Your task to perform on an android device: change the upload size in google photos Image 0: 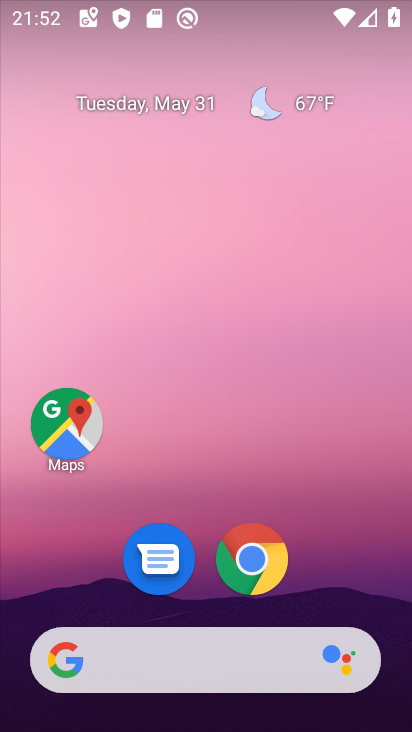
Step 0: drag from (336, 517) to (347, 35)
Your task to perform on an android device: change the upload size in google photos Image 1: 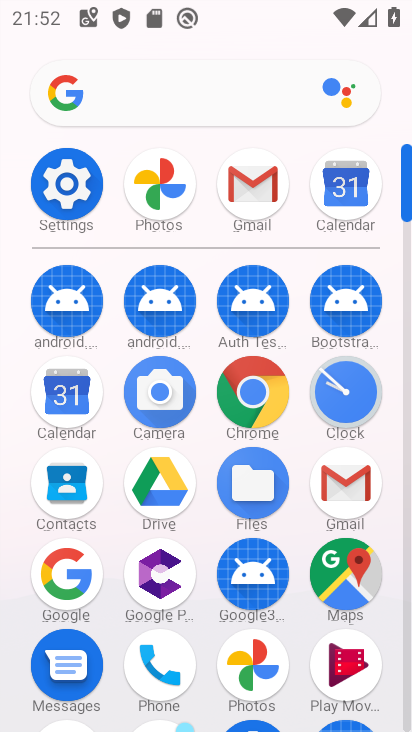
Step 1: click (166, 185)
Your task to perform on an android device: change the upload size in google photos Image 2: 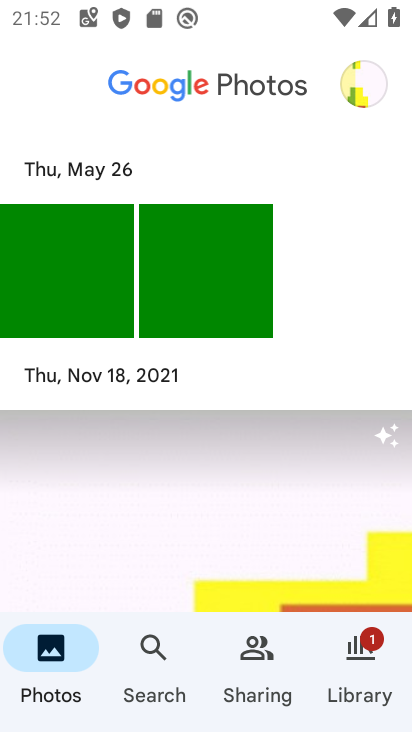
Step 2: click (363, 82)
Your task to perform on an android device: change the upload size in google photos Image 3: 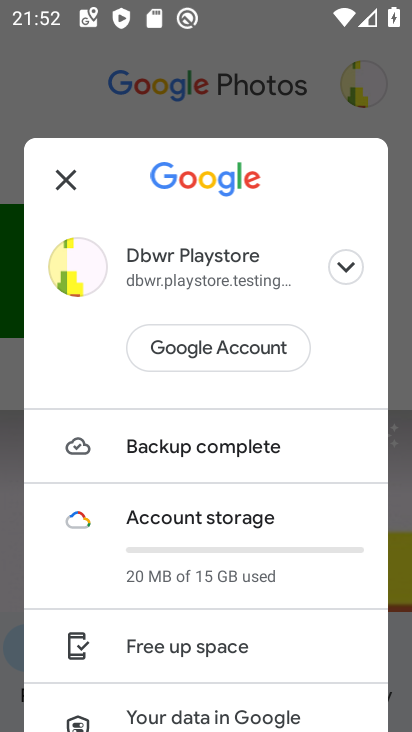
Step 3: drag from (198, 662) to (195, 304)
Your task to perform on an android device: change the upload size in google photos Image 4: 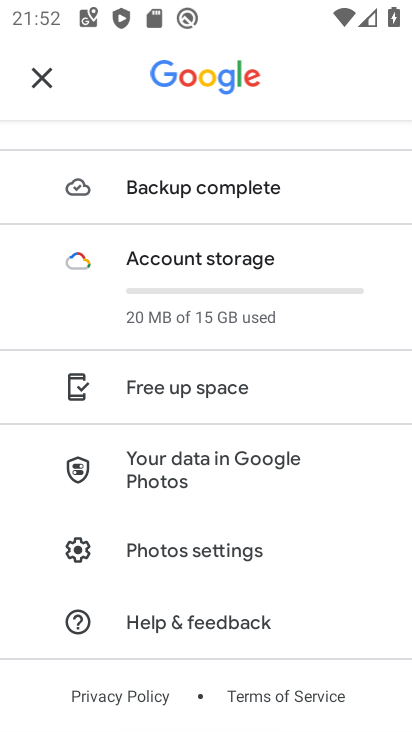
Step 4: click (172, 549)
Your task to perform on an android device: change the upload size in google photos Image 5: 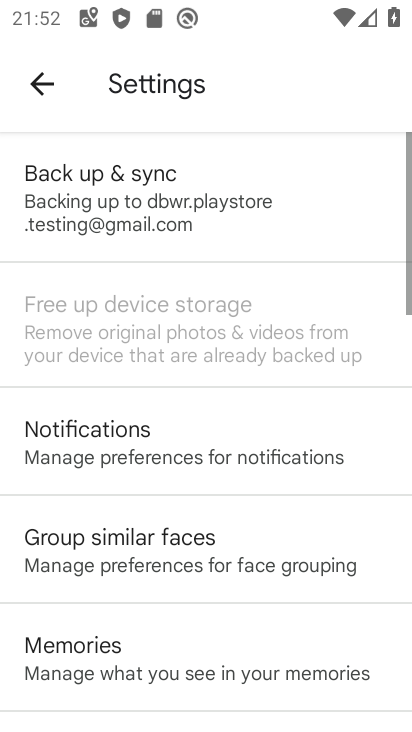
Step 5: click (125, 217)
Your task to perform on an android device: change the upload size in google photos Image 6: 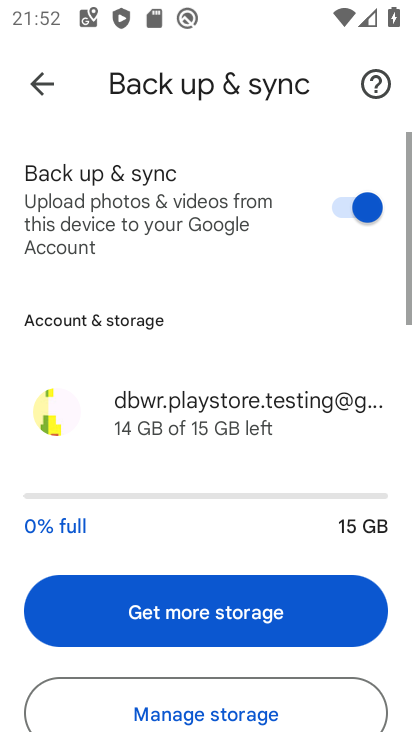
Step 6: drag from (210, 602) to (220, 79)
Your task to perform on an android device: change the upload size in google photos Image 7: 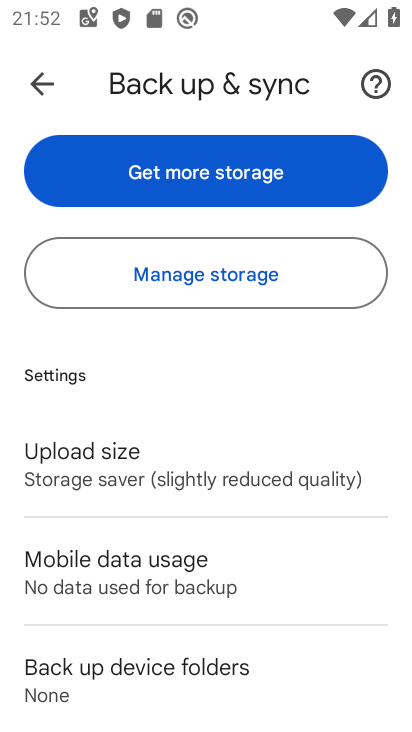
Step 7: click (76, 465)
Your task to perform on an android device: change the upload size in google photos Image 8: 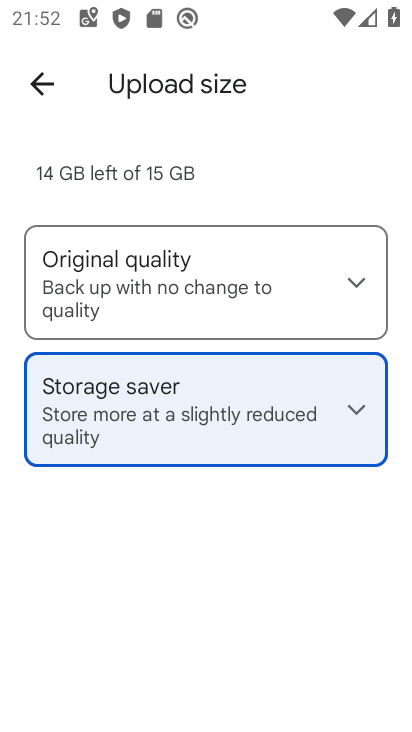
Step 8: click (115, 282)
Your task to perform on an android device: change the upload size in google photos Image 9: 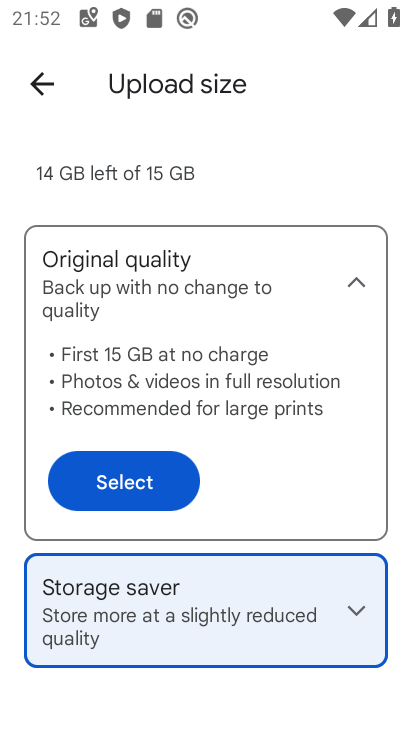
Step 9: click (135, 480)
Your task to perform on an android device: change the upload size in google photos Image 10: 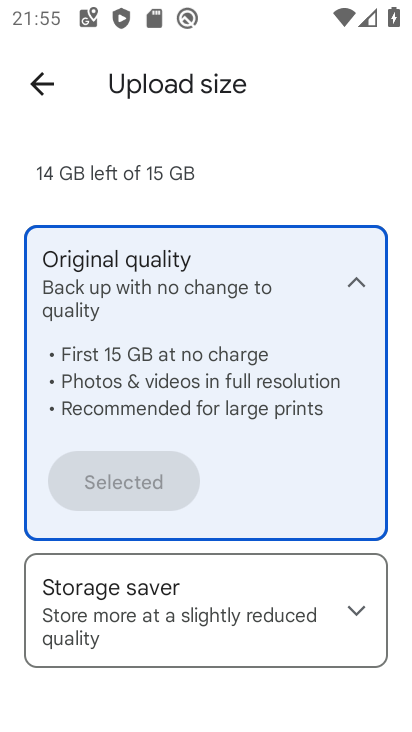
Step 10: task complete